Your task to perform on an android device: toggle notifications settings in the gmail app Image 0: 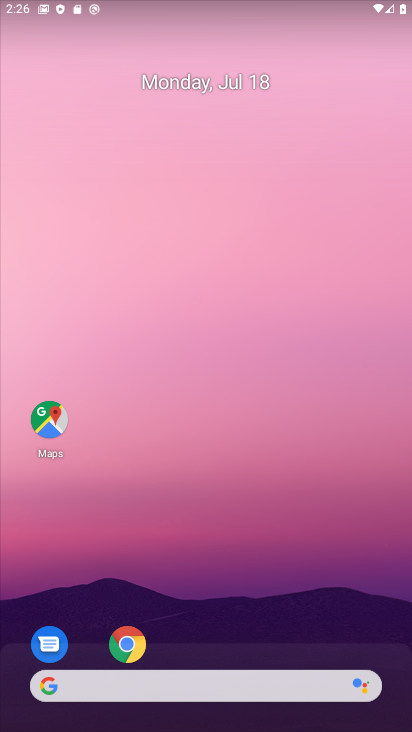
Step 0: drag from (360, 627) to (244, 91)
Your task to perform on an android device: toggle notifications settings in the gmail app Image 1: 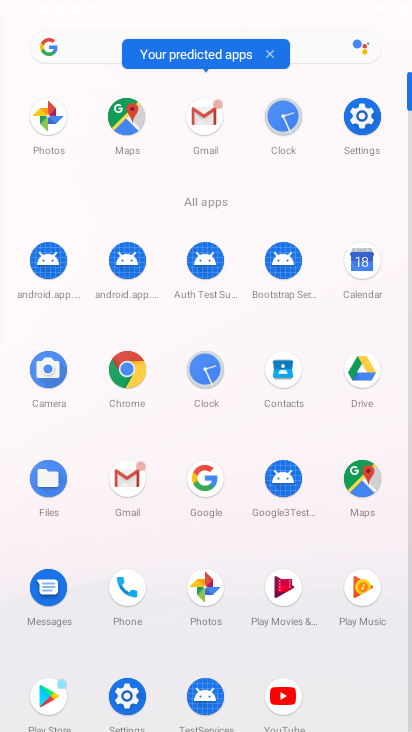
Step 1: click (214, 126)
Your task to perform on an android device: toggle notifications settings in the gmail app Image 2: 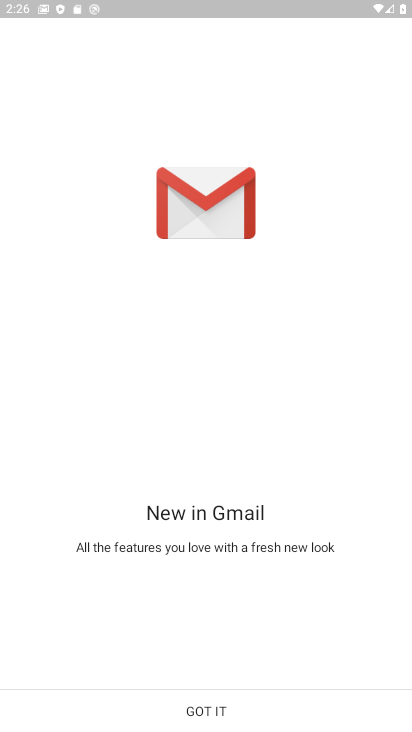
Step 2: click (221, 715)
Your task to perform on an android device: toggle notifications settings in the gmail app Image 3: 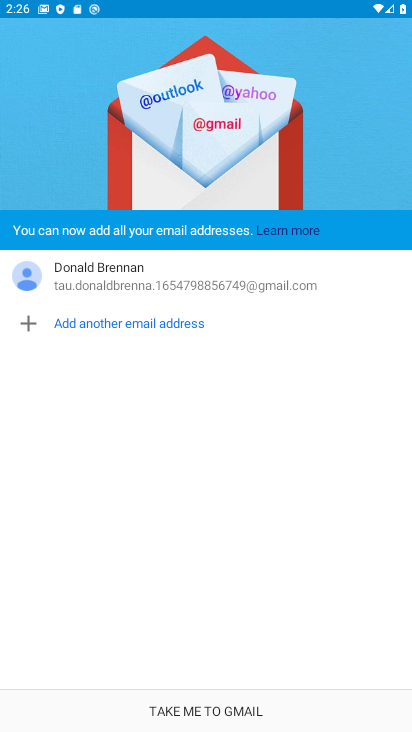
Step 3: click (221, 715)
Your task to perform on an android device: toggle notifications settings in the gmail app Image 4: 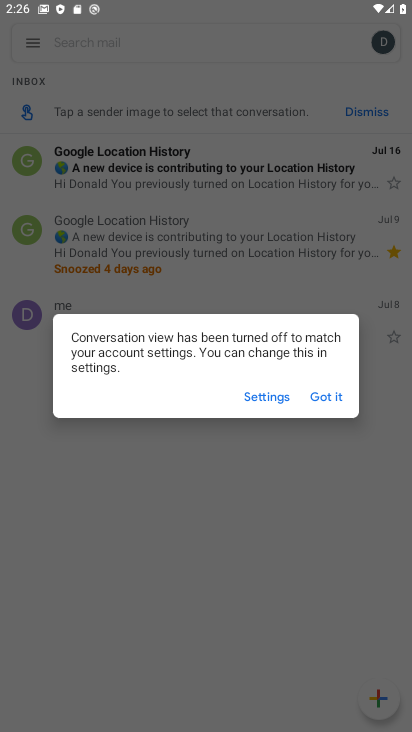
Step 4: click (334, 392)
Your task to perform on an android device: toggle notifications settings in the gmail app Image 5: 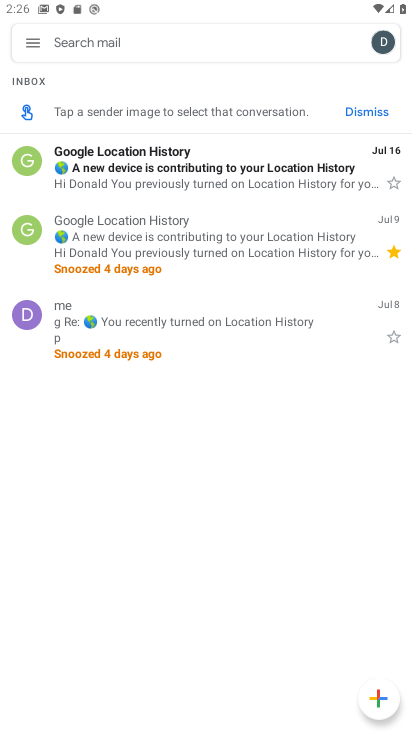
Step 5: click (33, 39)
Your task to perform on an android device: toggle notifications settings in the gmail app Image 6: 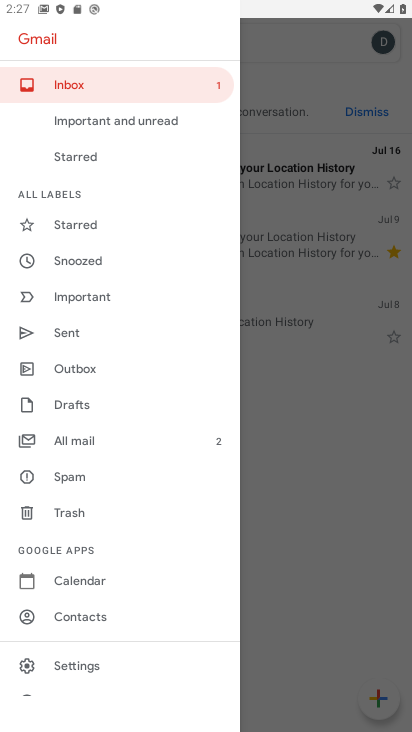
Step 6: click (132, 671)
Your task to perform on an android device: toggle notifications settings in the gmail app Image 7: 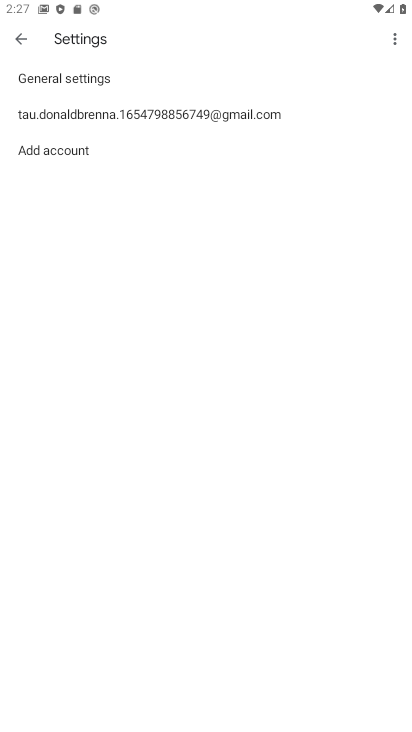
Step 7: click (112, 120)
Your task to perform on an android device: toggle notifications settings in the gmail app Image 8: 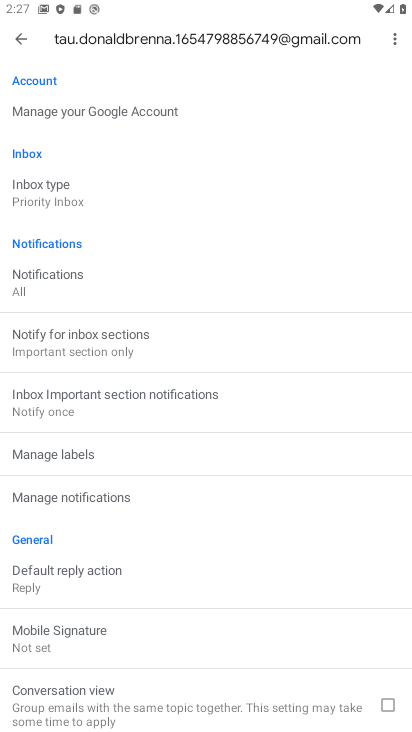
Step 8: click (159, 493)
Your task to perform on an android device: toggle notifications settings in the gmail app Image 9: 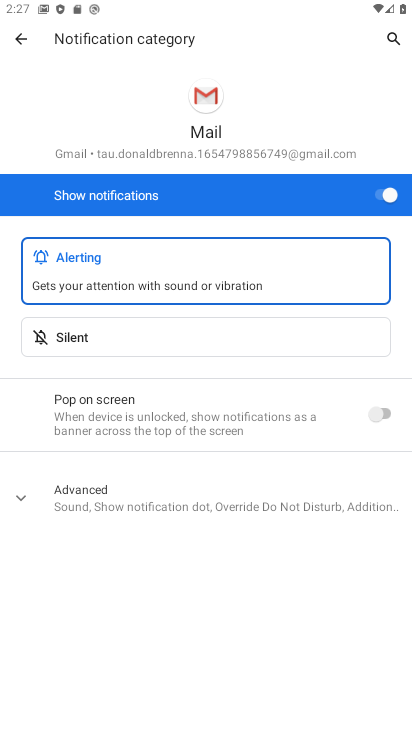
Step 9: click (264, 343)
Your task to perform on an android device: toggle notifications settings in the gmail app Image 10: 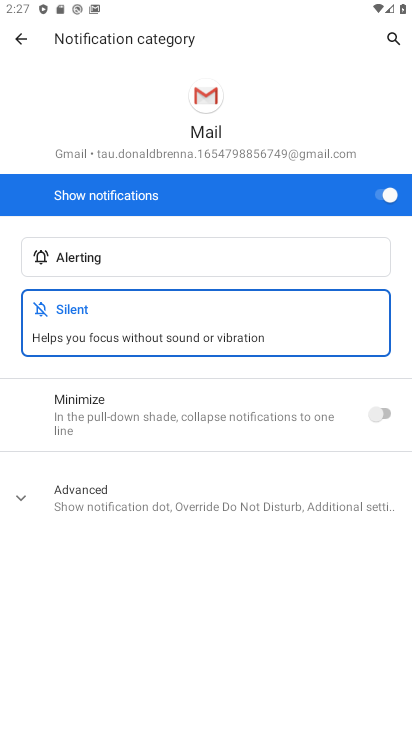
Step 10: click (378, 422)
Your task to perform on an android device: toggle notifications settings in the gmail app Image 11: 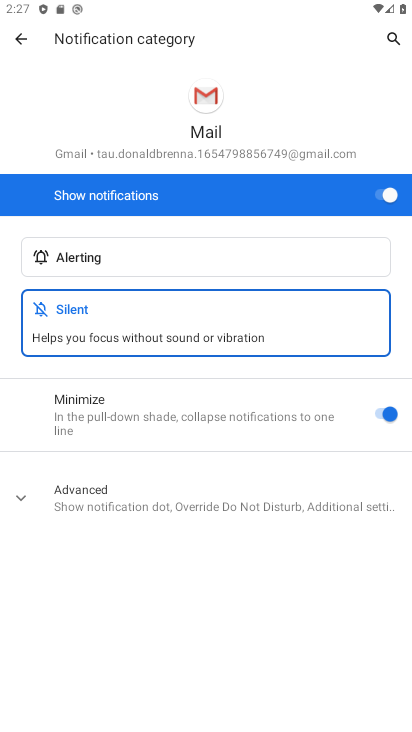
Step 11: task complete